Your task to perform on an android device: Open calendar and show me the first week of next month Image 0: 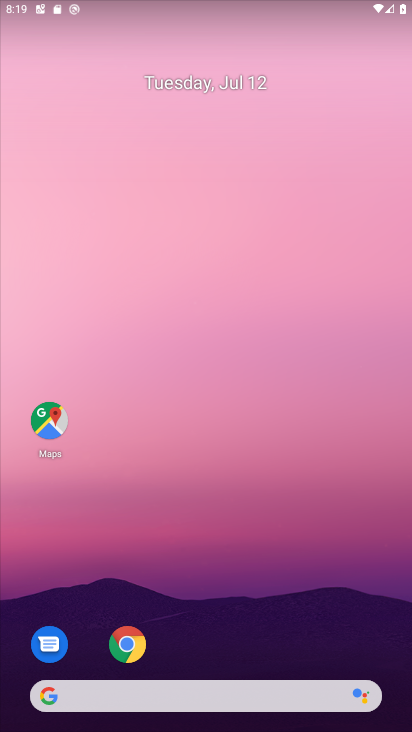
Step 0: drag from (249, 611) to (221, 33)
Your task to perform on an android device: Open calendar and show me the first week of next month Image 1: 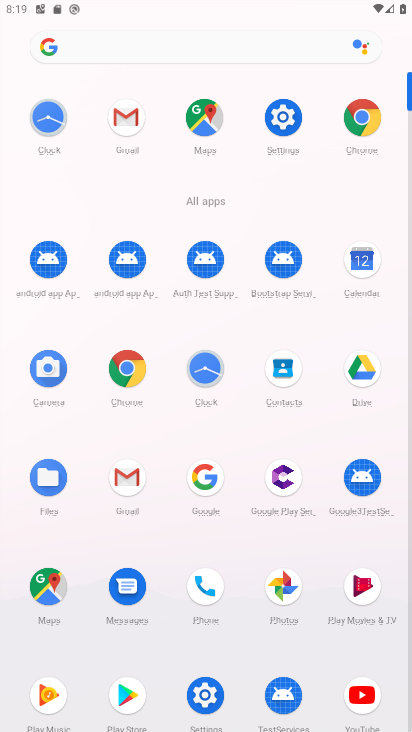
Step 1: click (349, 264)
Your task to perform on an android device: Open calendar and show me the first week of next month Image 2: 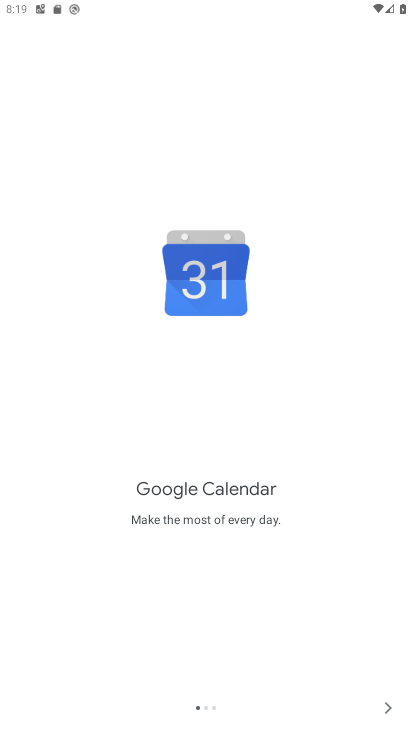
Step 2: click (393, 712)
Your task to perform on an android device: Open calendar and show me the first week of next month Image 3: 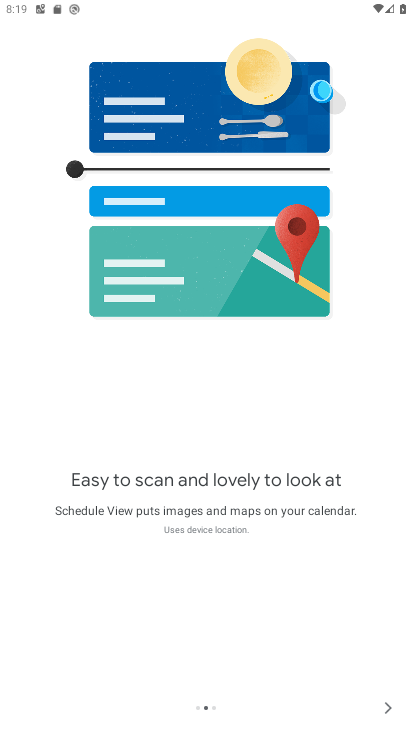
Step 3: click (393, 712)
Your task to perform on an android device: Open calendar and show me the first week of next month Image 4: 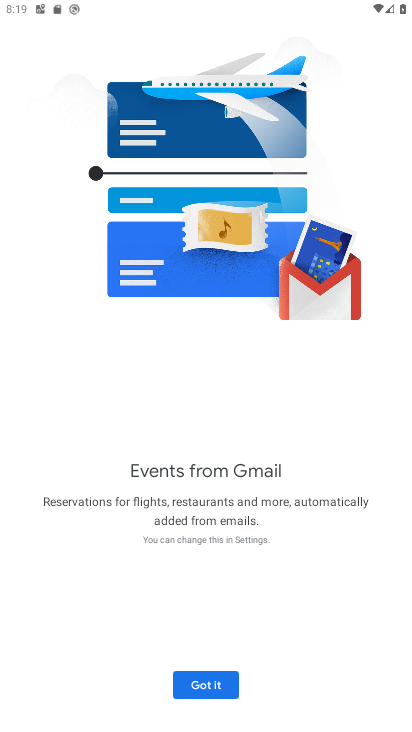
Step 4: click (393, 712)
Your task to perform on an android device: Open calendar and show me the first week of next month Image 5: 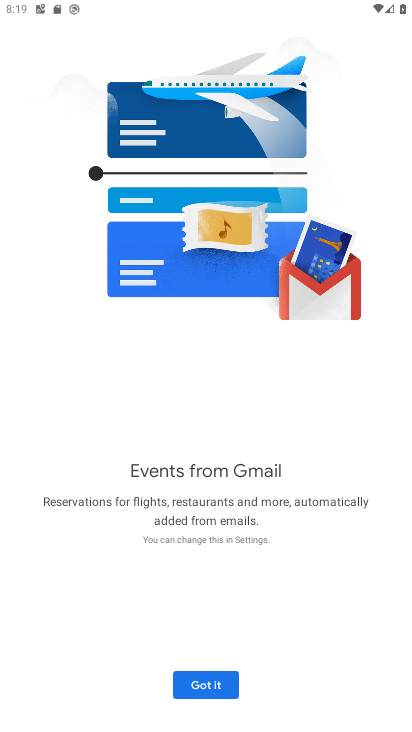
Step 5: click (198, 672)
Your task to perform on an android device: Open calendar and show me the first week of next month Image 6: 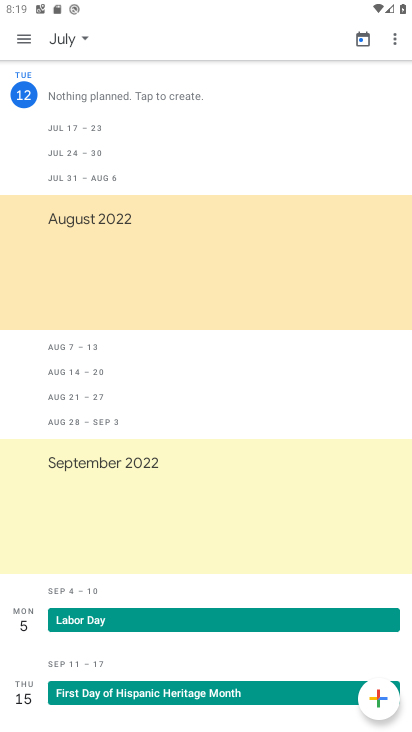
Step 6: click (80, 34)
Your task to perform on an android device: Open calendar and show me the first week of next month Image 7: 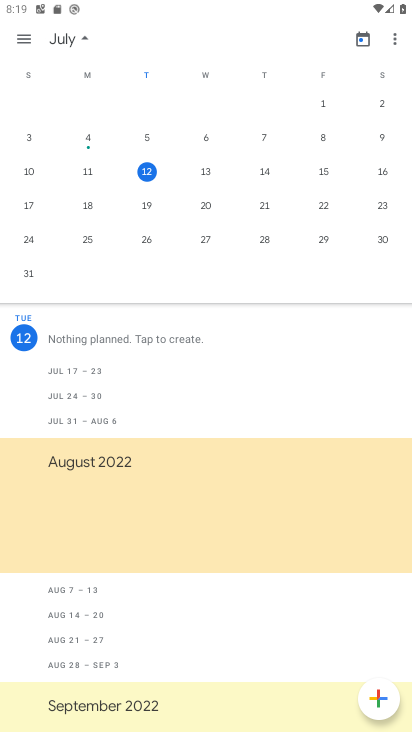
Step 7: drag from (230, 217) to (31, 242)
Your task to perform on an android device: Open calendar and show me the first week of next month Image 8: 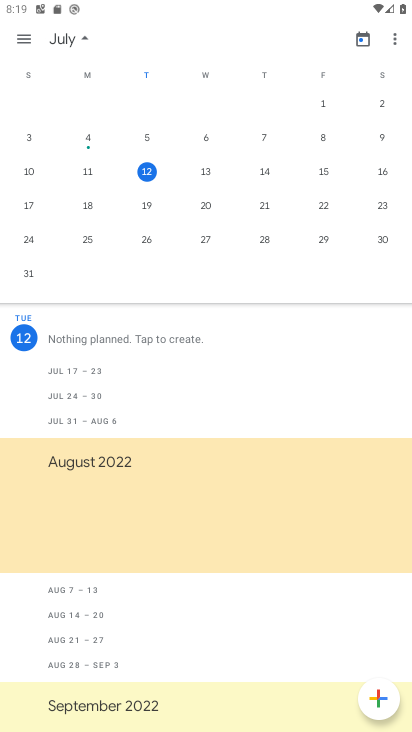
Step 8: click (263, 143)
Your task to perform on an android device: Open calendar and show me the first week of next month Image 9: 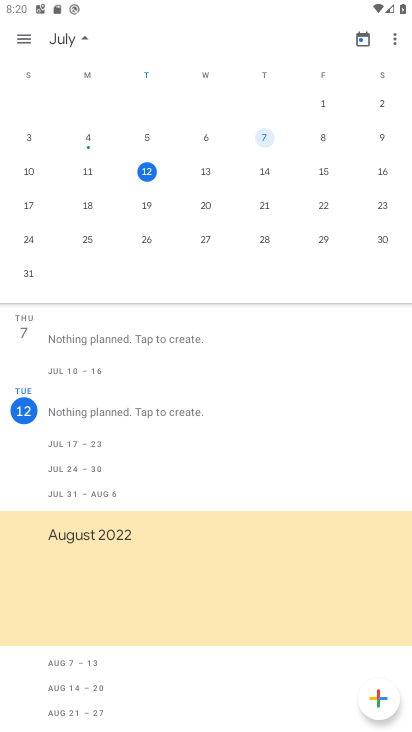
Step 9: task complete